Your task to perform on an android device: What's the weather going to be tomorrow? Image 0: 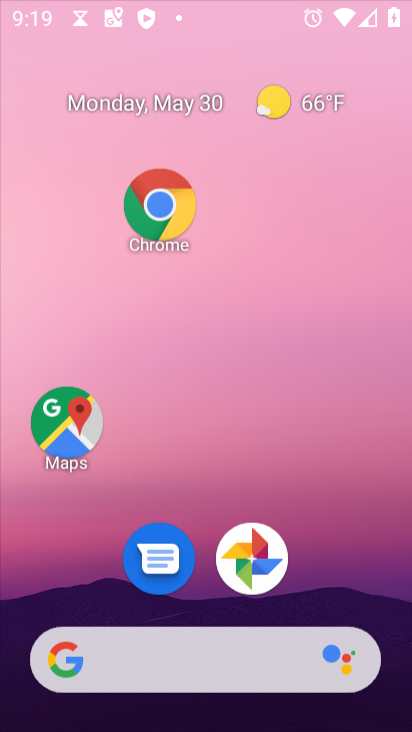
Step 0: click (147, 150)
Your task to perform on an android device: What's the weather going to be tomorrow? Image 1: 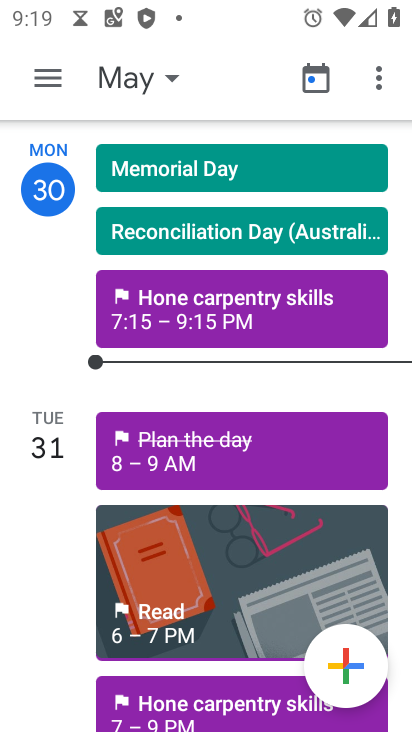
Step 1: press back button
Your task to perform on an android device: What's the weather going to be tomorrow? Image 2: 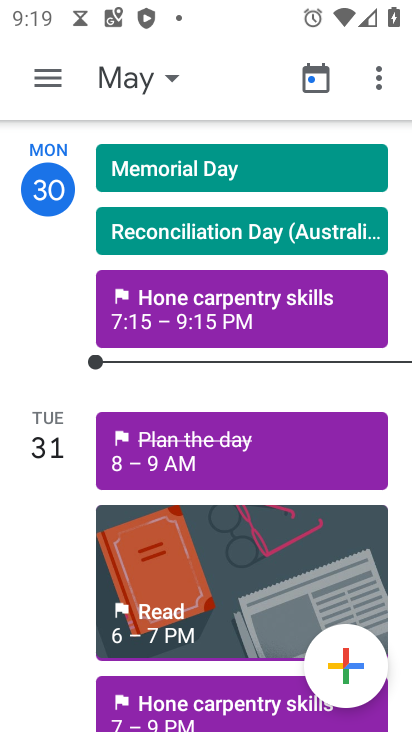
Step 2: press back button
Your task to perform on an android device: What's the weather going to be tomorrow? Image 3: 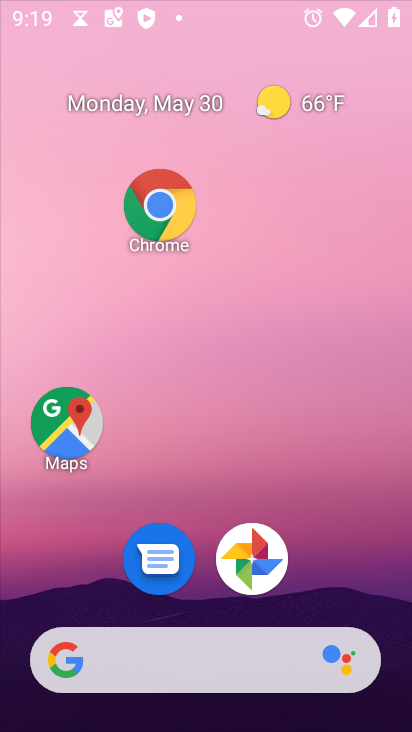
Step 3: press back button
Your task to perform on an android device: What's the weather going to be tomorrow? Image 4: 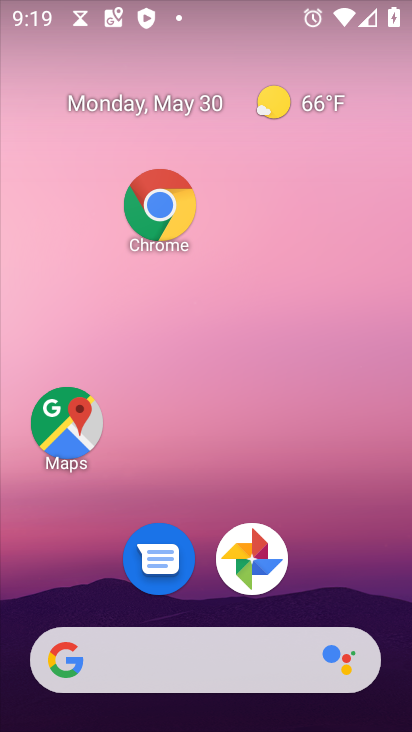
Step 4: drag from (1, 215) to (405, 384)
Your task to perform on an android device: What's the weather going to be tomorrow? Image 5: 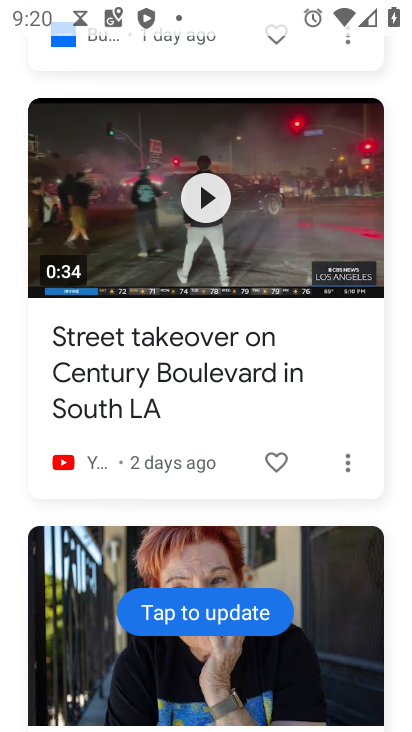
Step 5: drag from (166, 72) to (204, 709)
Your task to perform on an android device: What's the weather going to be tomorrow? Image 6: 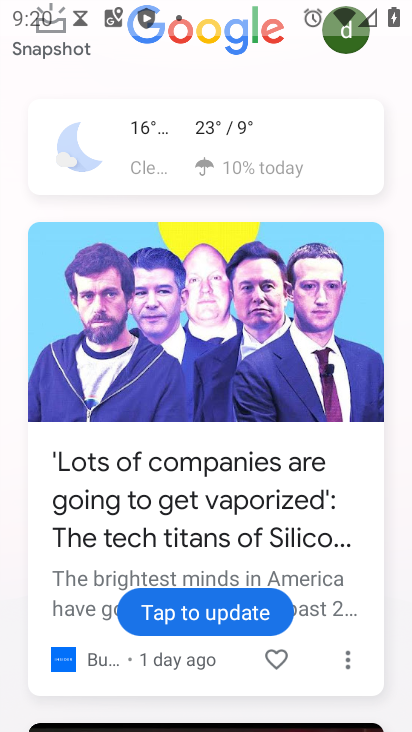
Step 6: drag from (157, 180) to (157, 599)
Your task to perform on an android device: What's the weather going to be tomorrow? Image 7: 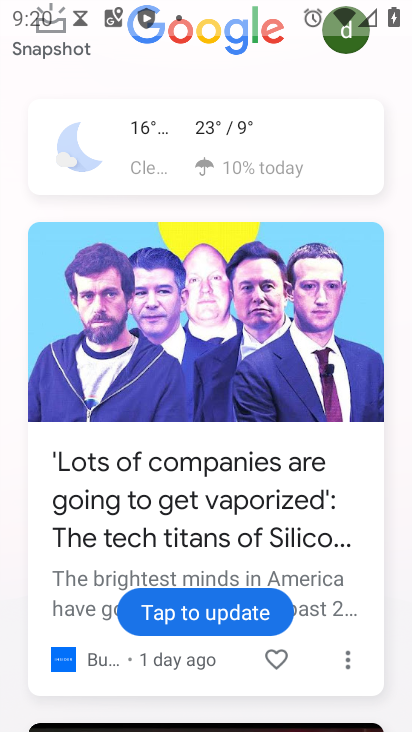
Step 7: drag from (134, 275) to (209, 682)
Your task to perform on an android device: What's the weather going to be tomorrow? Image 8: 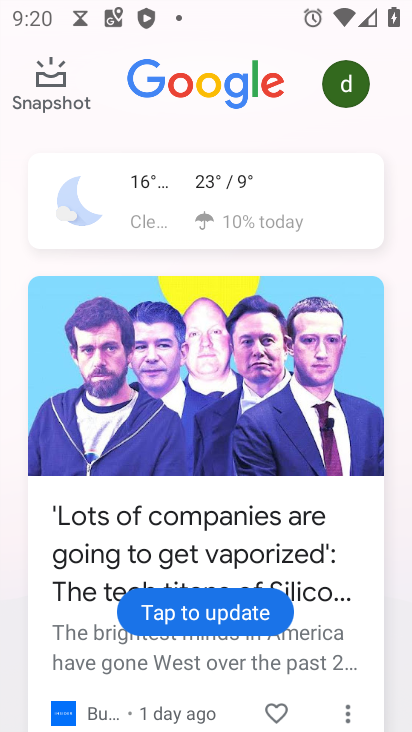
Step 8: click (174, 187)
Your task to perform on an android device: What's the weather going to be tomorrow? Image 9: 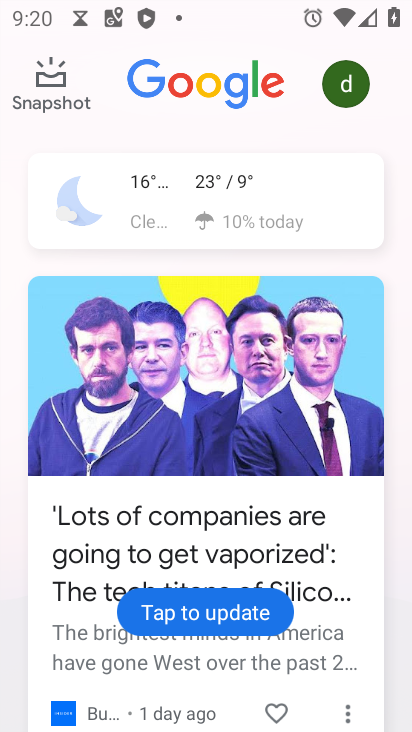
Step 9: click (174, 187)
Your task to perform on an android device: What's the weather going to be tomorrow? Image 10: 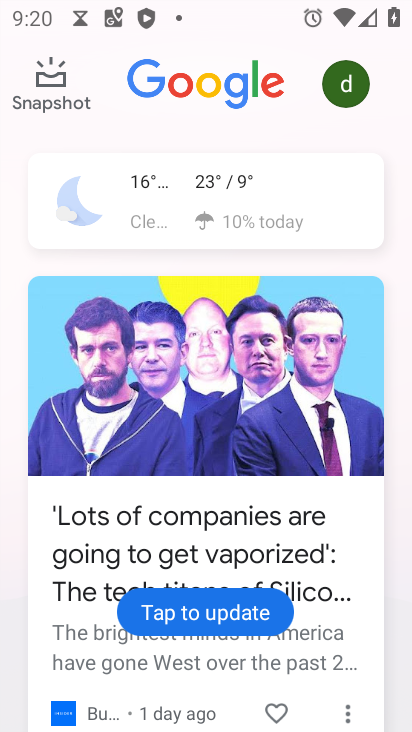
Step 10: click (177, 187)
Your task to perform on an android device: What's the weather going to be tomorrow? Image 11: 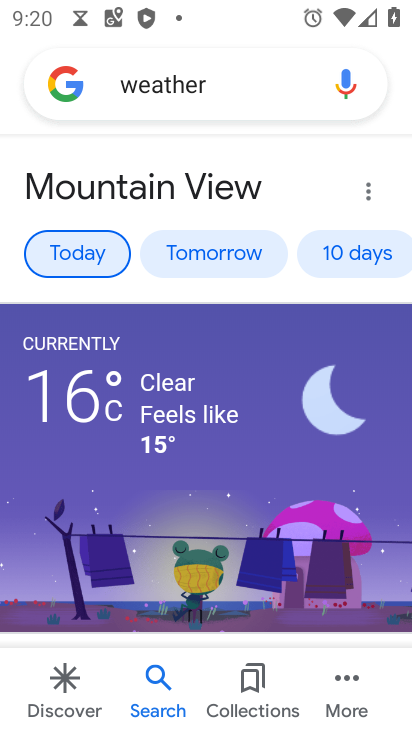
Step 11: click (192, 264)
Your task to perform on an android device: What's the weather going to be tomorrow? Image 12: 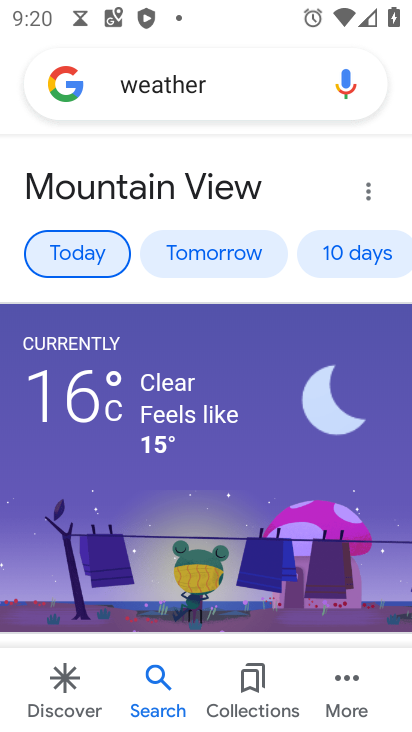
Step 12: click (192, 263)
Your task to perform on an android device: What's the weather going to be tomorrow? Image 13: 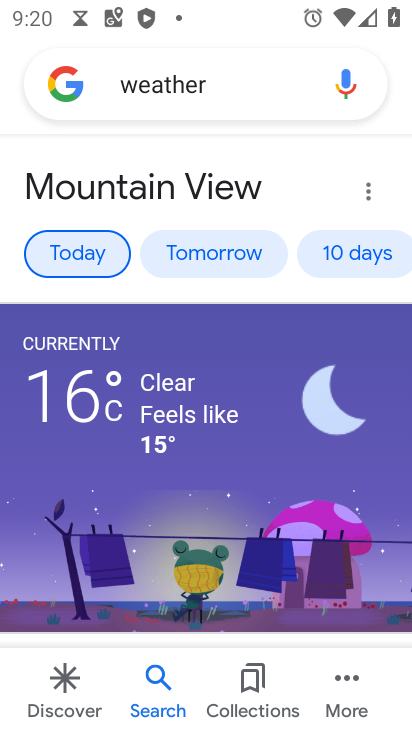
Step 13: click (192, 261)
Your task to perform on an android device: What's the weather going to be tomorrow? Image 14: 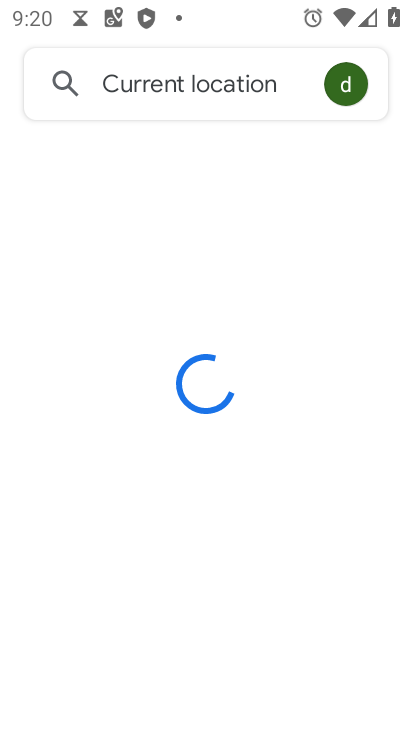
Step 14: click (193, 254)
Your task to perform on an android device: What's the weather going to be tomorrow? Image 15: 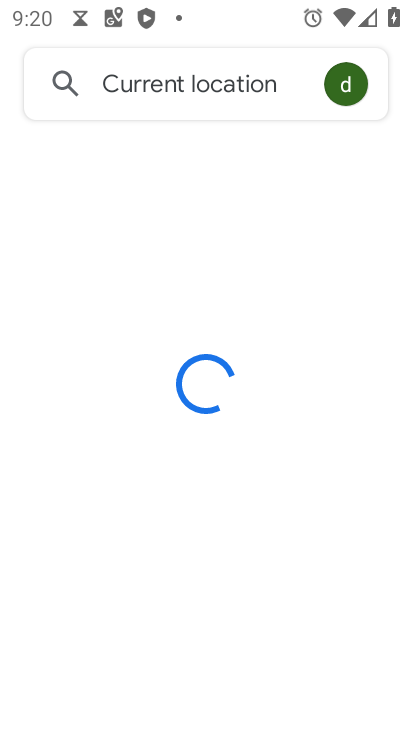
Step 15: click (193, 253)
Your task to perform on an android device: What's the weather going to be tomorrow? Image 16: 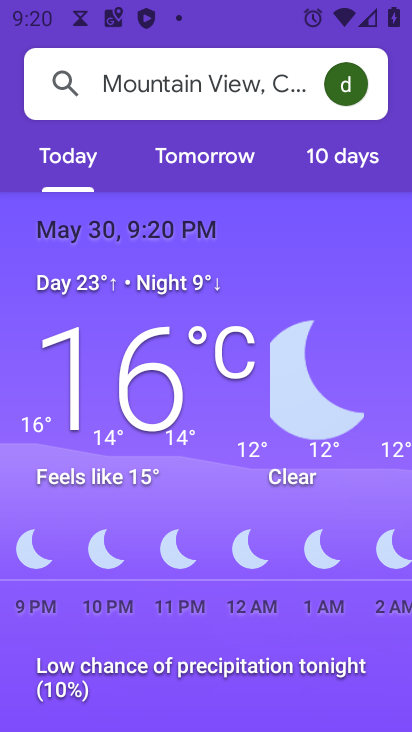
Step 16: click (193, 100)
Your task to perform on an android device: What's the weather going to be tomorrow? Image 17: 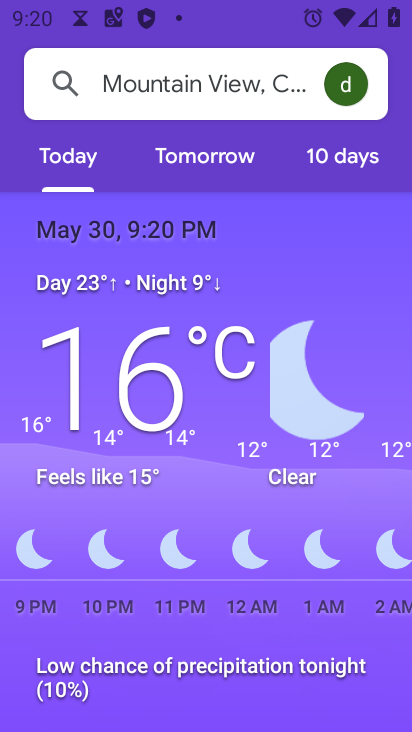
Step 17: click (193, 100)
Your task to perform on an android device: What's the weather going to be tomorrow? Image 18: 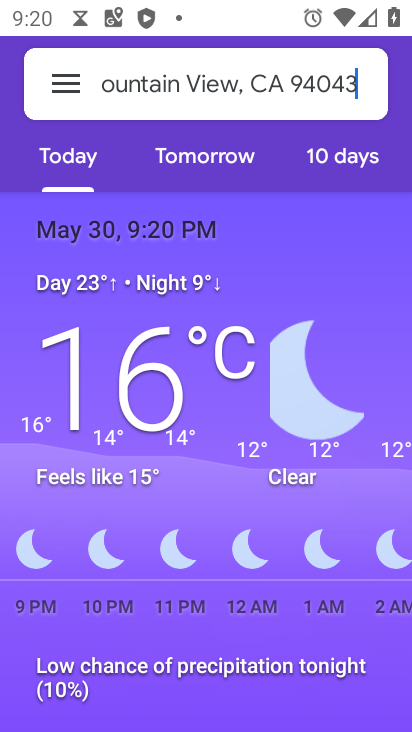
Step 18: click (193, 100)
Your task to perform on an android device: What's the weather going to be tomorrow? Image 19: 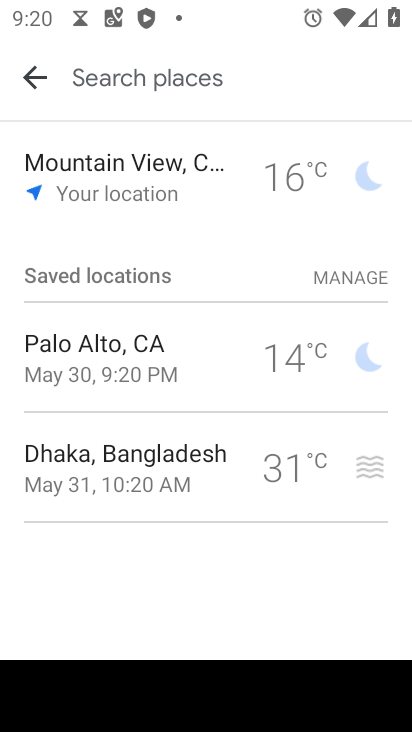
Step 19: click (193, 99)
Your task to perform on an android device: What's the weather going to be tomorrow? Image 20: 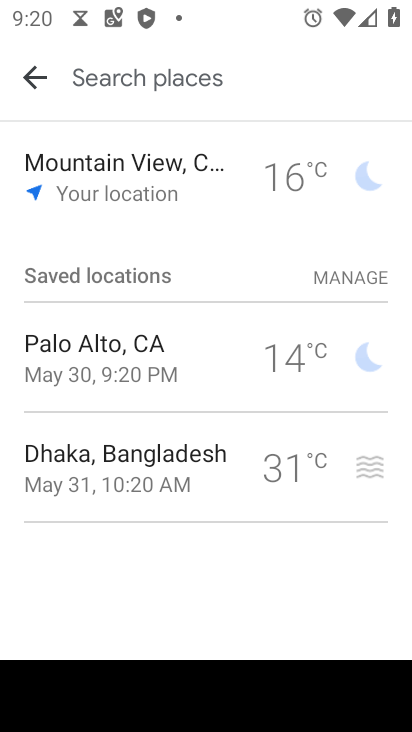
Step 20: click (34, 79)
Your task to perform on an android device: What's the weather going to be tomorrow? Image 21: 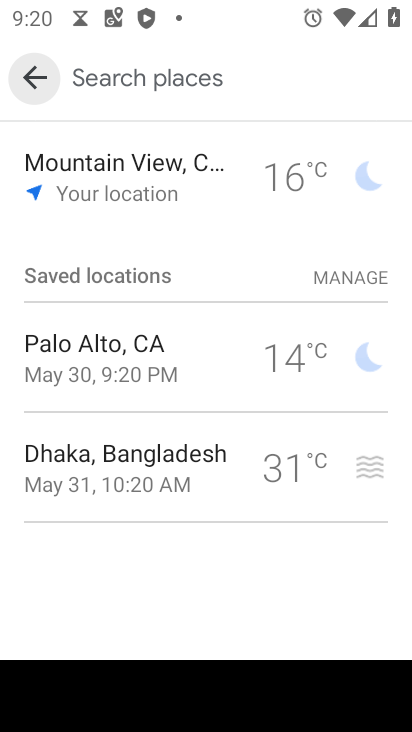
Step 21: click (36, 78)
Your task to perform on an android device: What's the weather going to be tomorrow? Image 22: 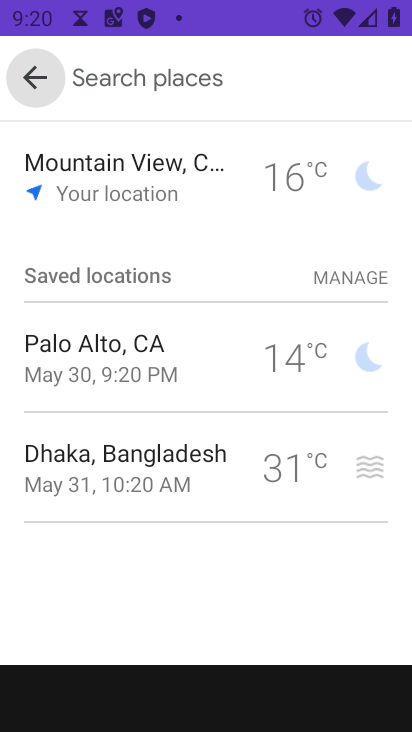
Step 22: click (42, 75)
Your task to perform on an android device: What's the weather going to be tomorrow? Image 23: 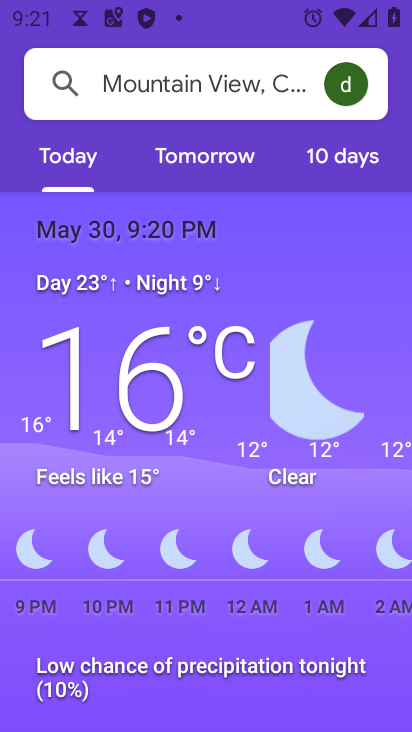
Step 23: click (181, 81)
Your task to perform on an android device: What's the weather going to be tomorrow? Image 24: 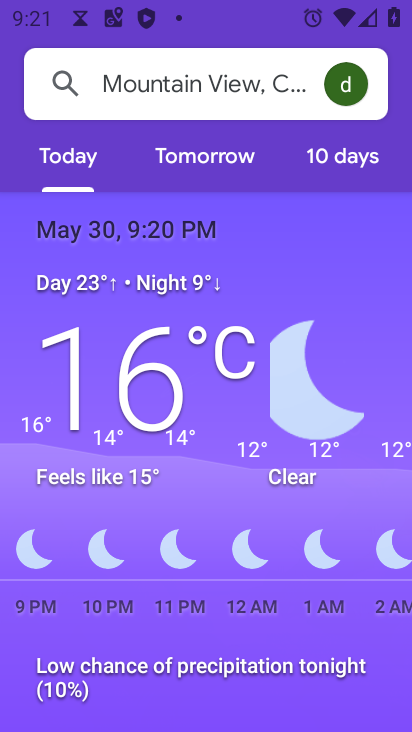
Step 24: click (181, 81)
Your task to perform on an android device: What's the weather going to be tomorrow? Image 25: 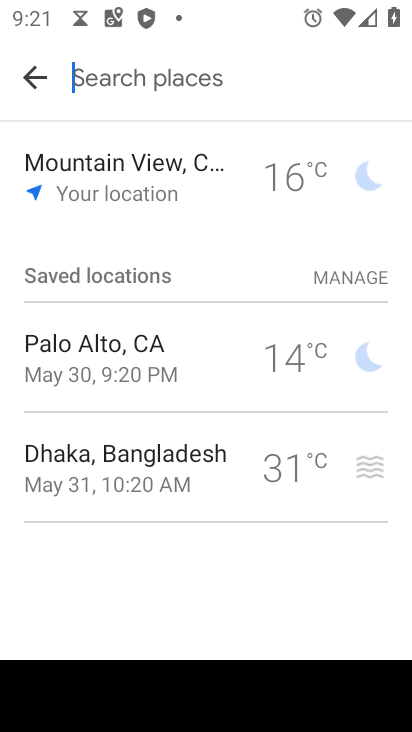
Step 25: click (184, 90)
Your task to perform on an android device: What's the weather going to be tomorrow? Image 26: 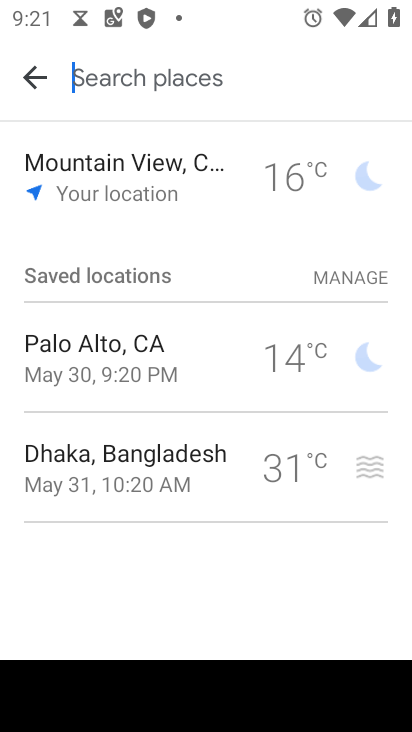
Step 26: click (22, 78)
Your task to perform on an android device: What's the weather going to be tomorrow? Image 27: 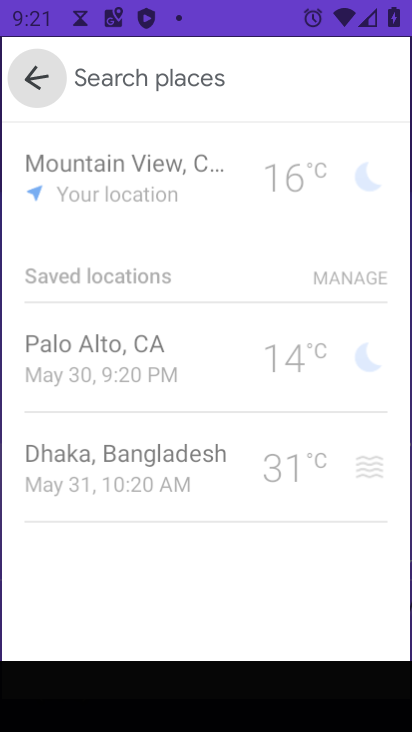
Step 27: click (23, 78)
Your task to perform on an android device: What's the weather going to be tomorrow? Image 28: 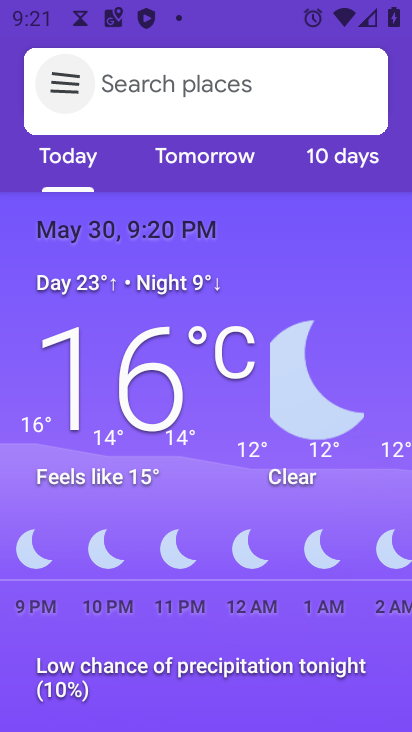
Step 28: click (23, 78)
Your task to perform on an android device: What's the weather going to be tomorrow? Image 29: 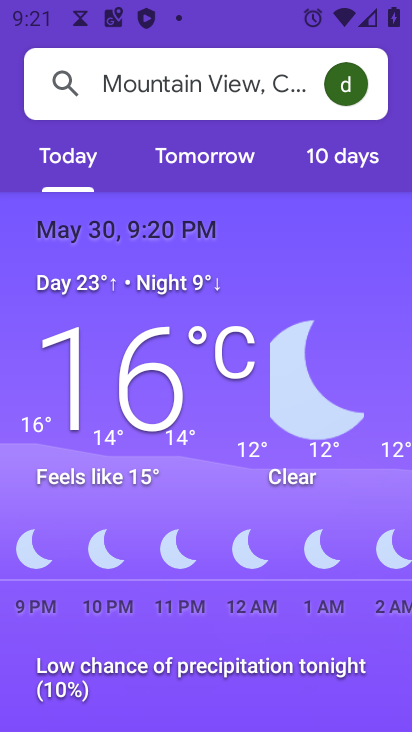
Step 29: task complete